Your task to perform on an android device: Open the calendar app, open the side menu, and click the "Day" option Image 0: 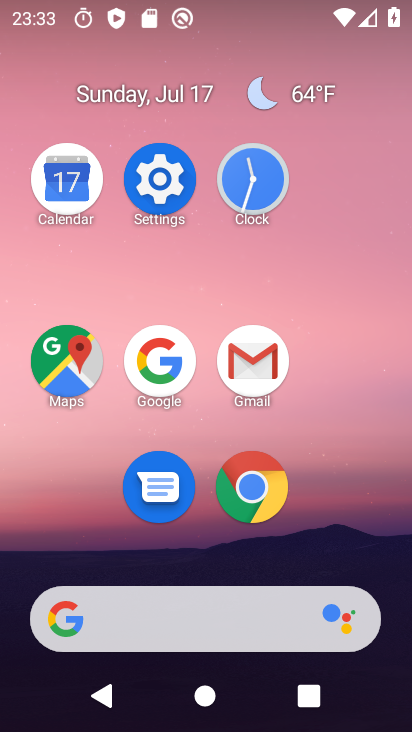
Step 0: click (69, 176)
Your task to perform on an android device: Open the calendar app, open the side menu, and click the "Day" option Image 1: 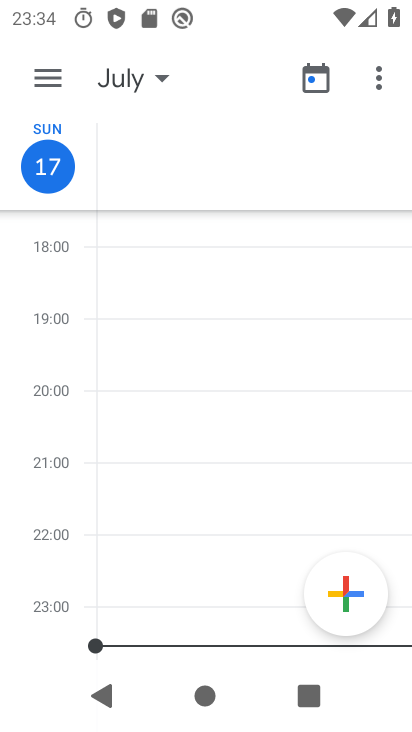
Step 1: click (44, 74)
Your task to perform on an android device: Open the calendar app, open the side menu, and click the "Day" option Image 2: 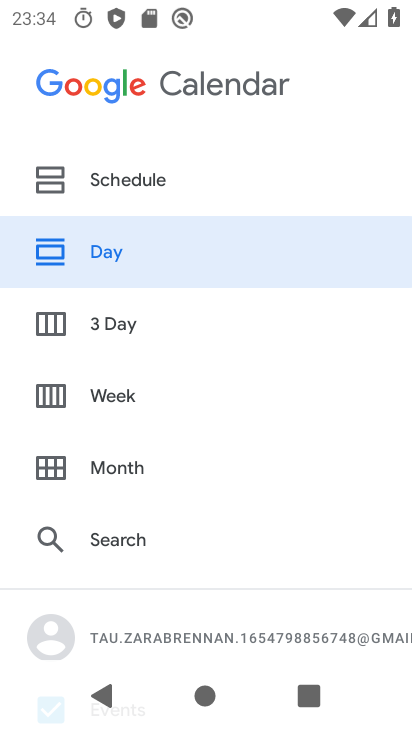
Step 2: click (115, 261)
Your task to perform on an android device: Open the calendar app, open the side menu, and click the "Day" option Image 3: 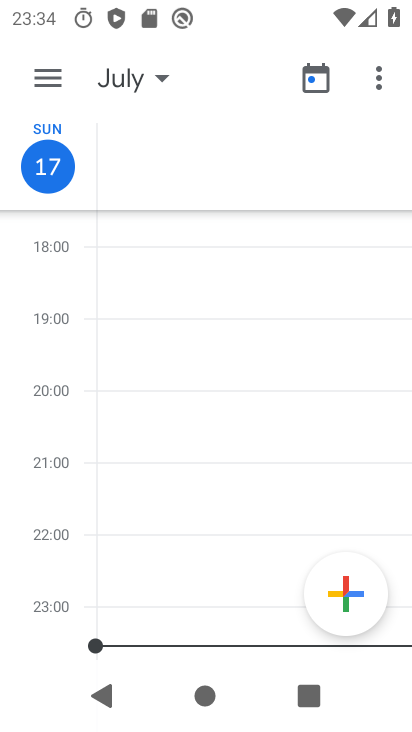
Step 3: task complete